Your task to perform on an android device: Open wifi settings Image 0: 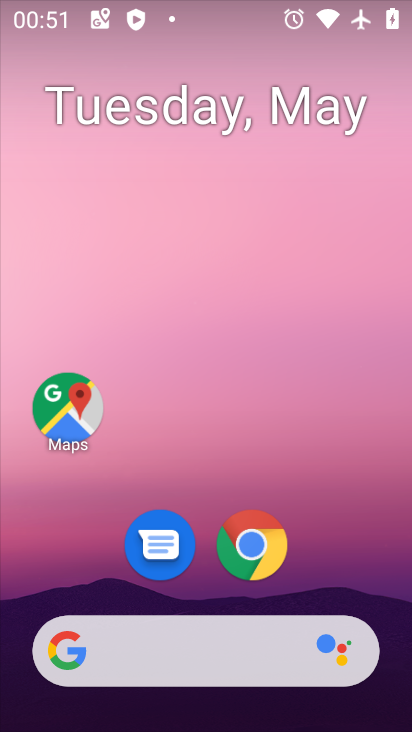
Step 0: drag from (330, 591) to (308, 35)
Your task to perform on an android device: Open wifi settings Image 1: 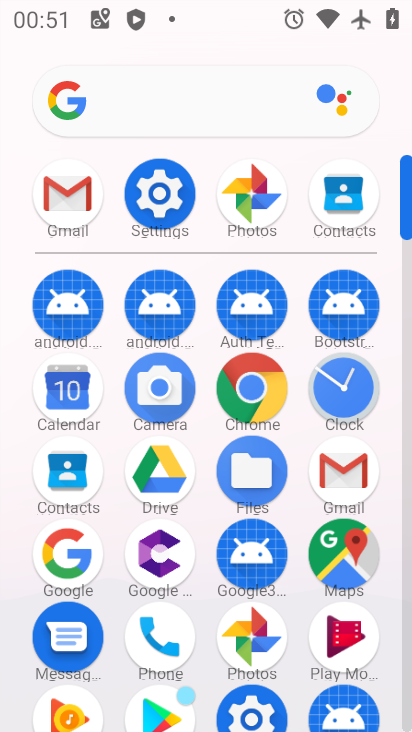
Step 1: click (180, 205)
Your task to perform on an android device: Open wifi settings Image 2: 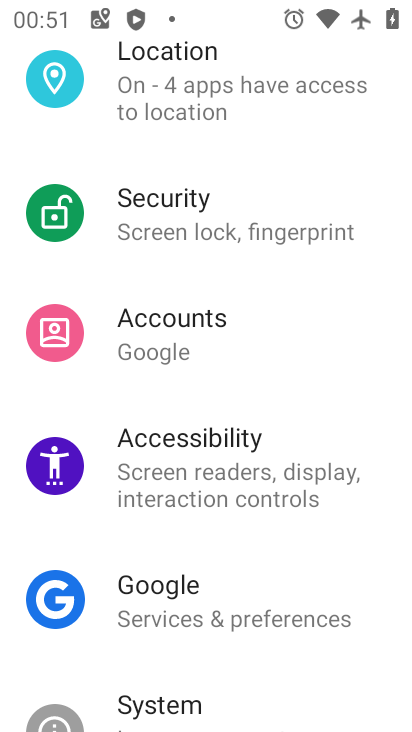
Step 2: drag from (180, 205) to (220, 345)
Your task to perform on an android device: Open wifi settings Image 3: 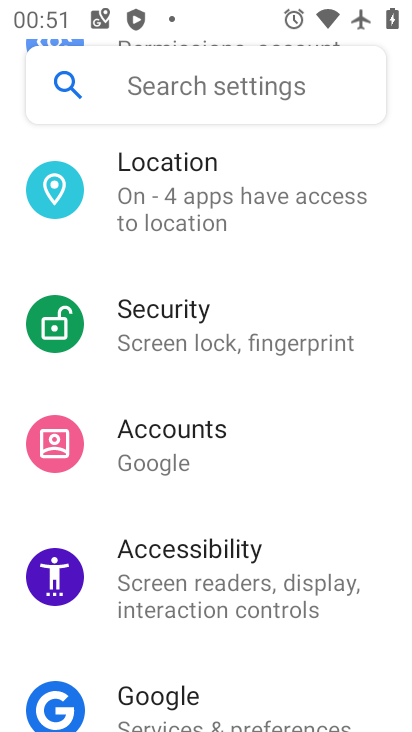
Step 3: drag from (216, 284) to (246, 436)
Your task to perform on an android device: Open wifi settings Image 4: 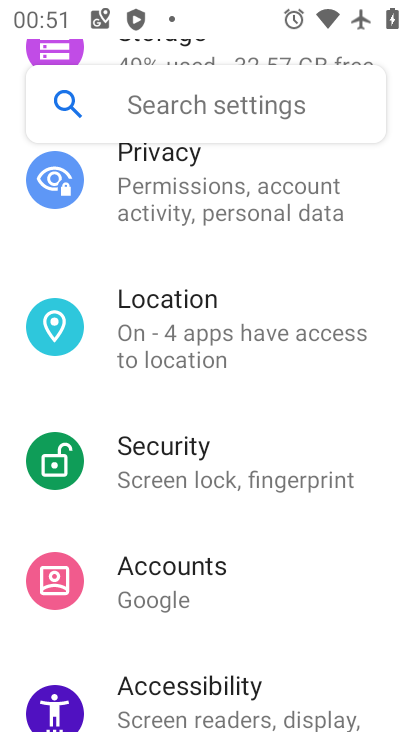
Step 4: drag from (205, 338) to (233, 463)
Your task to perform on an android device: Open wifi settings Image 5: 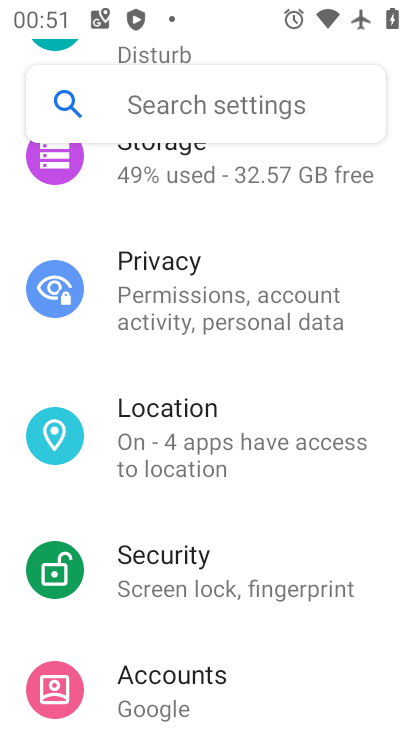
Step 5: drag from (212, 315) to (249, 424)
Your task to perform on an android device: Open wifi settings Image 6: 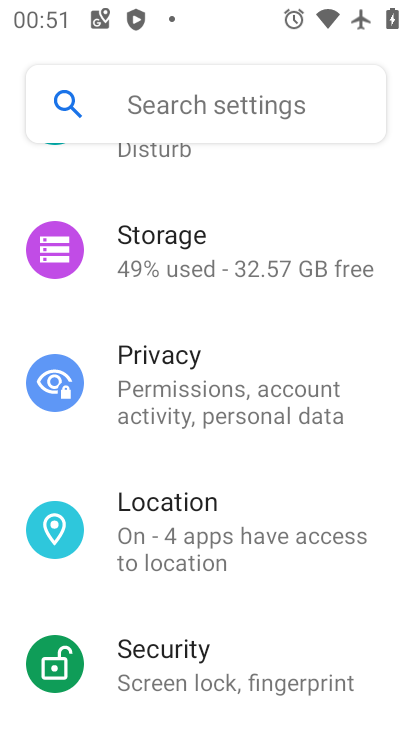
Step 6: drag from (219, 317) to (239, 442)
Your task to perform on an android device: Open wifi settings Image 7: 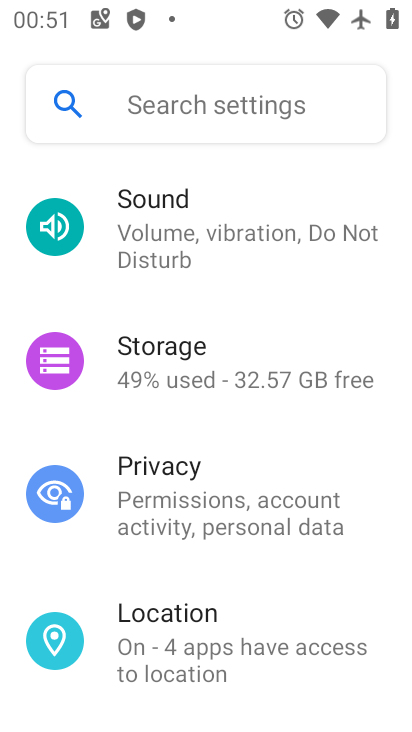
Step 7: drag from (239, 328) to (267, 528)
Your task to perform on an android device: Open wifi settings Image 8: 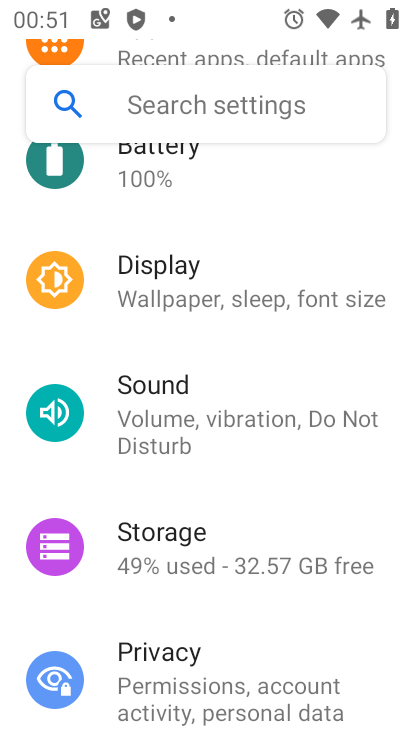
Step 8: drag from (243, 312) to (268, 457)
Your task to perform on an android device: Open wifi settings Image 9: 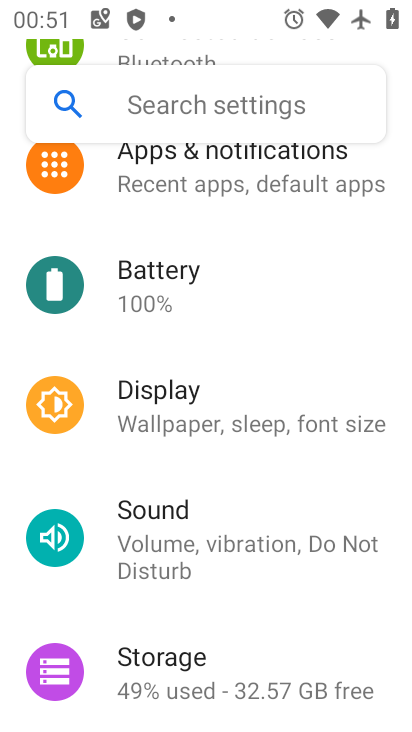
Step 9: drag from (216, 322) to (274, 470)
Your task to perform on an android device: Open wifi settings Image 10: 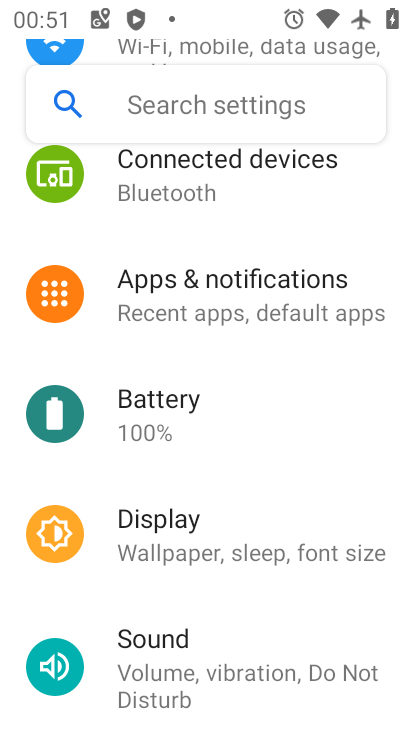
Step 10: drag from (245, 343) to (297, 494)
Your task to perform on an android device: Open wifi settings Image 11: 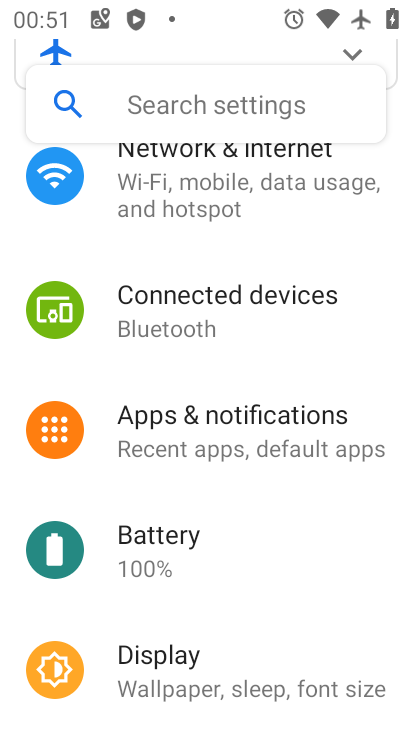
Step 11: drag from (264, 337) to (344, 539)
Your task to perform on an android device: Open wifi settings Image 12: 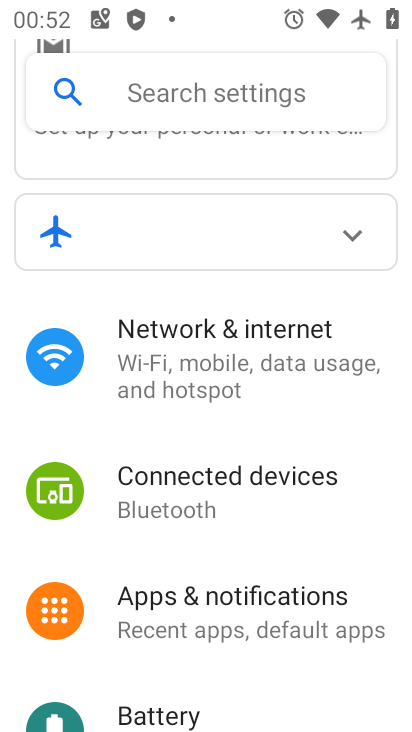
Step 12: click (239, 389)
Your task to perform on an android device: Open wifi settings Image 13: 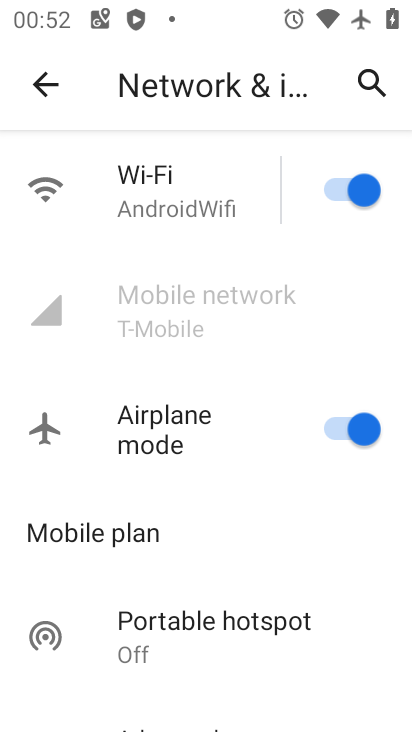
Step 13: click (131, 204)
Your task to perform on an android device: Open wifi settings Image 14: 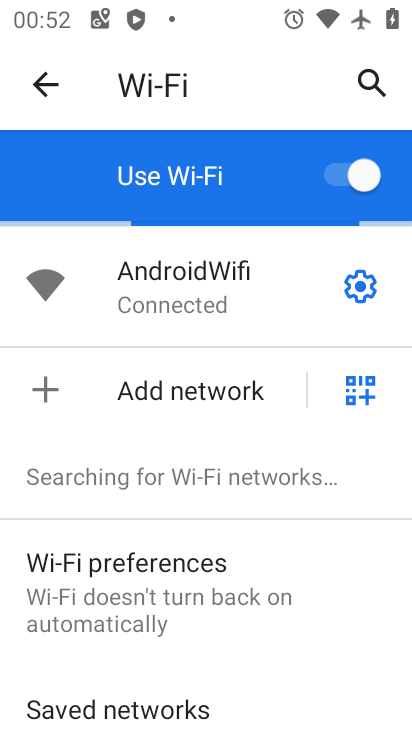
Step 14: task complete